Your task to perform on an android device: toggle wifi Image 0: 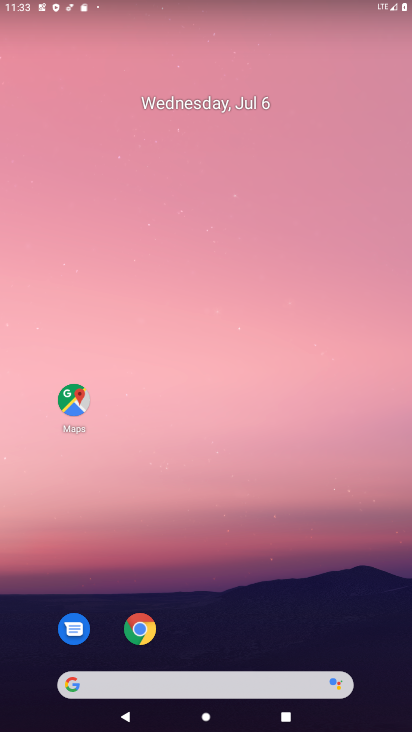
Step 0: drag from (232, 636) to (237, 22)
Your task to perform on an android device: toggle wifi Image 1: 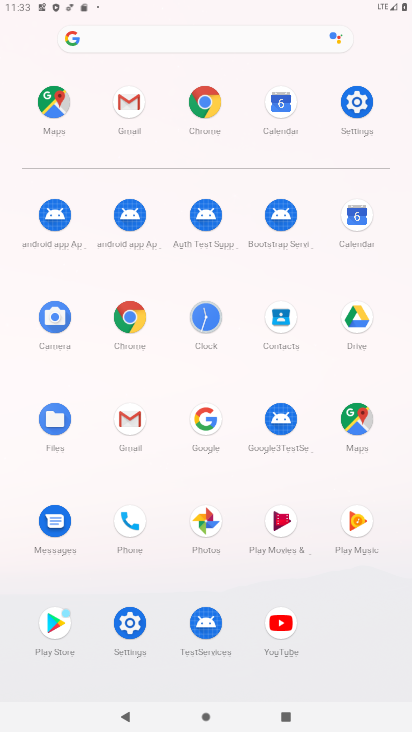
Step 1: click (347, 124)
Your task to perform on an android device: toggle wifi Image 2: 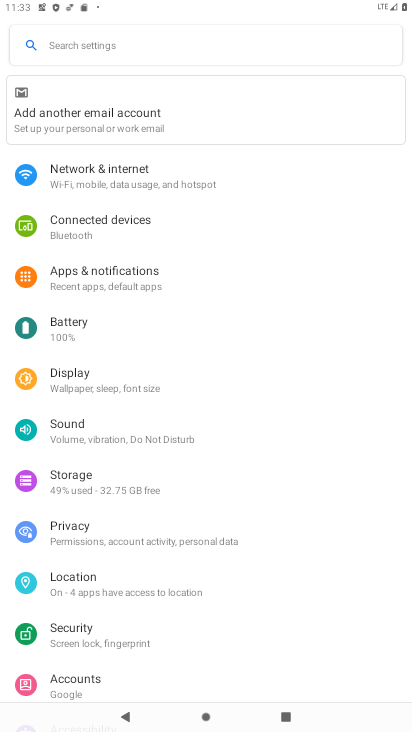
Step 2: click (148, 184)
Your task to perform on an android device: toggle wifi Image 3: 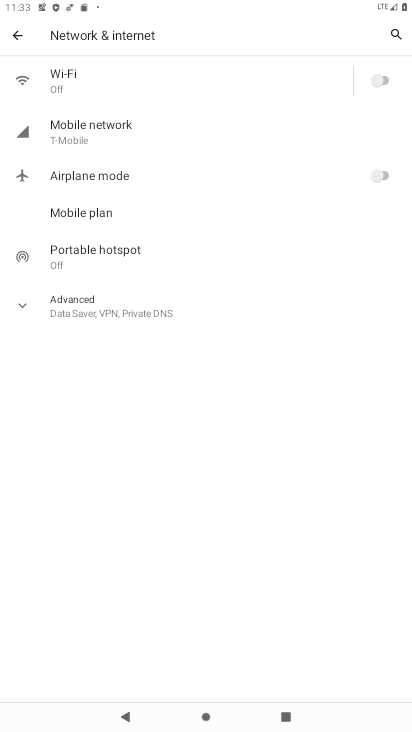
Step 3: click (150, 91)
Your task to perform on an android device: toggle wifi Image 4: 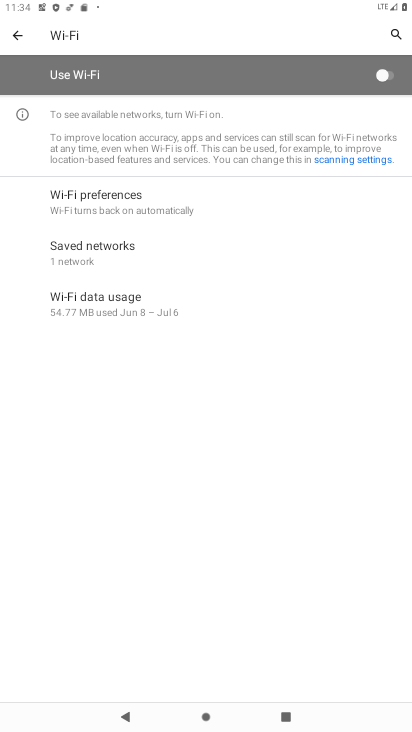
Step 4: click (384, 72)
Your task to perform on an android device: toggle wifi Image 5: 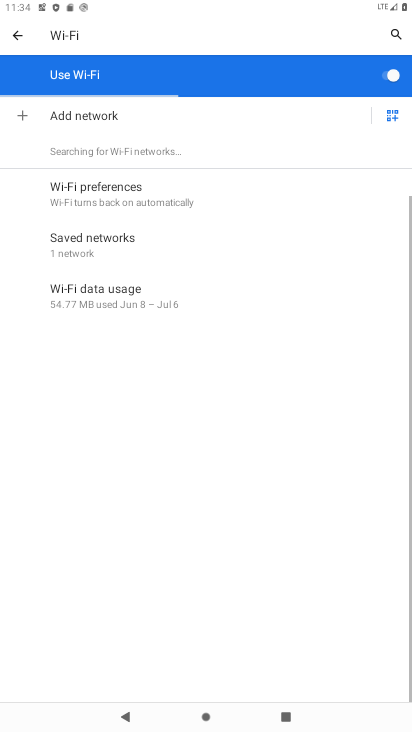
Step 5: task complete